Your task to perform on an android device: Go to notification settings Image 0: 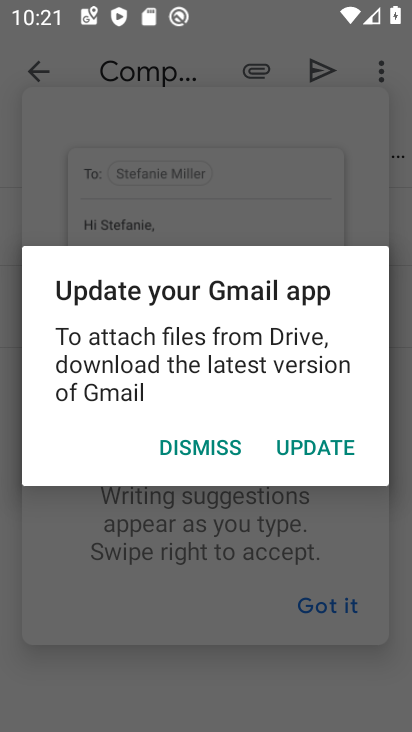
Step 0: press home button
Your task to perform on an android device: Go to notification settings Image 1: 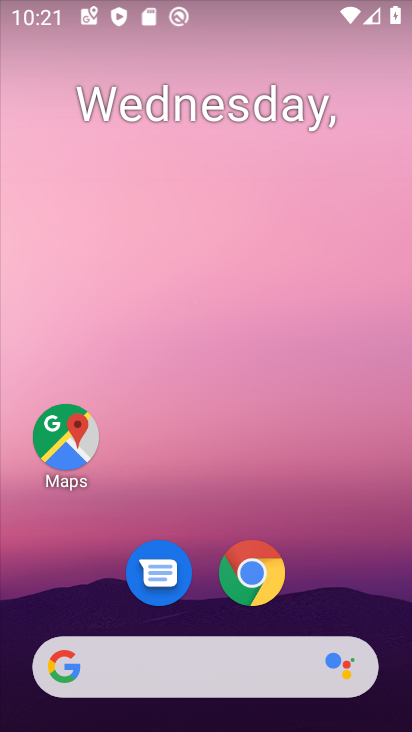
Step 1: drag from (202, 636) to (211, 168)
Your task to perform on an android device: Go to notification settings Image 2: 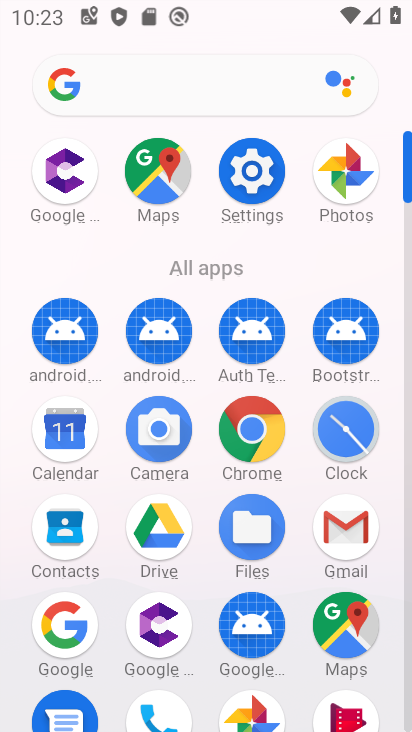
Step 2: click (244, 175)
Your task to perform on an android device: Go to notification settings Image 3: 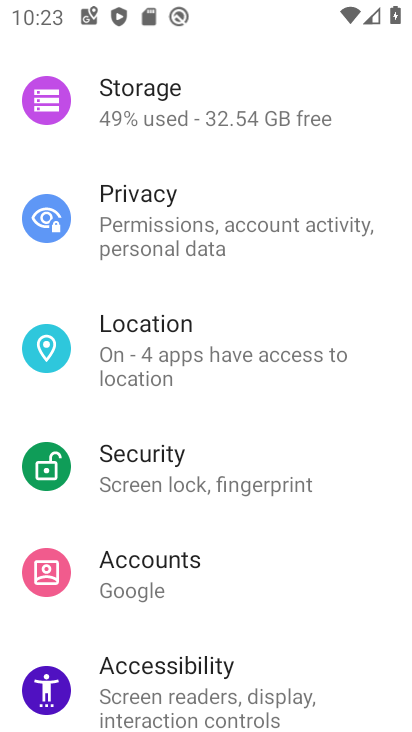
Step 3: drag from (169, 133) to (175, 643)
Your task to perform on an android device: Go to notification settings Image 4: 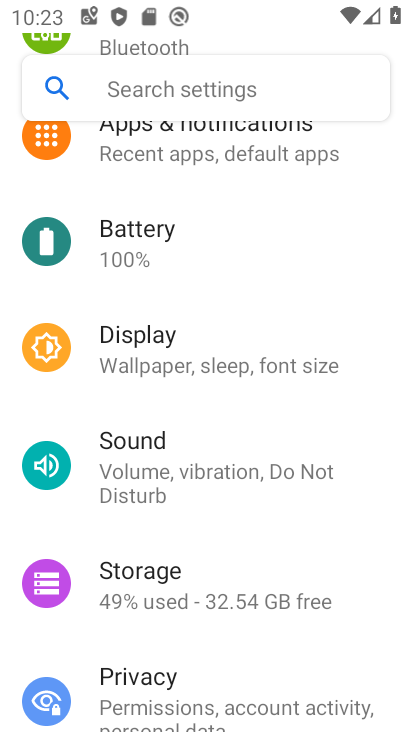
Step 4: click (153, 147)
Your task to perform on an android device: Go to notification settings Image 5: 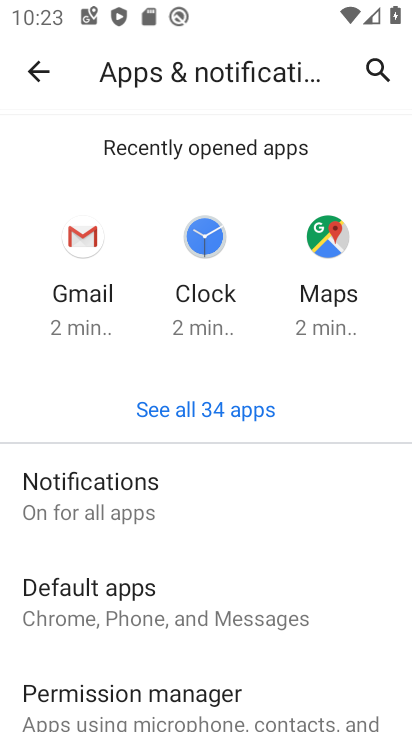
Step 5: drag from (137, 624) to (150, 180)
Your task to perform on an android device: Go to notification settings Image 6: 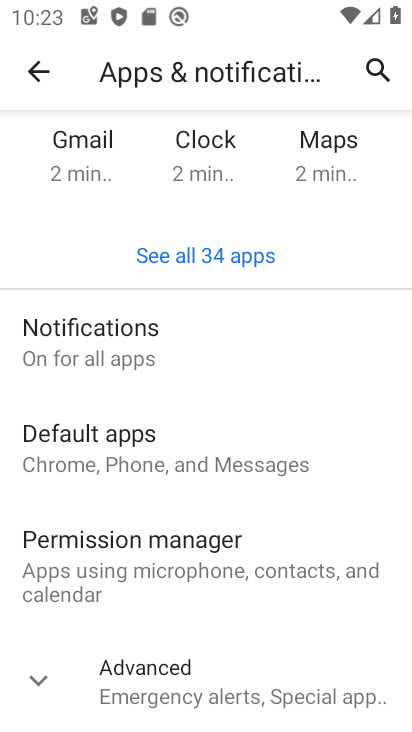
Step 6: click (198, 676)
Your task to perform on an android device: Go to notification settings Image 7: 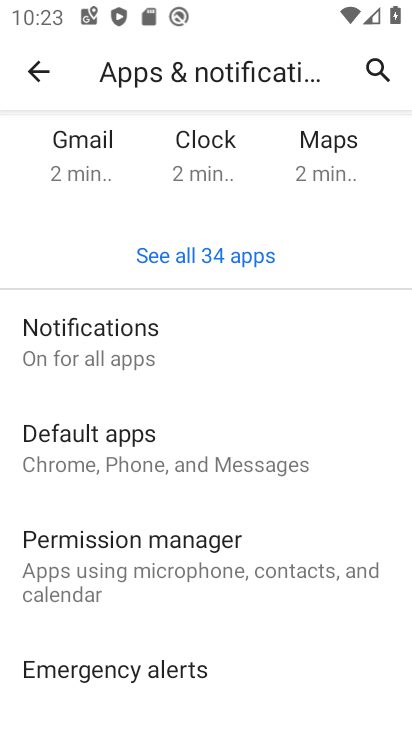
Step 7: task complete